Your task to perform on an android device: Go to Maps Image 0: 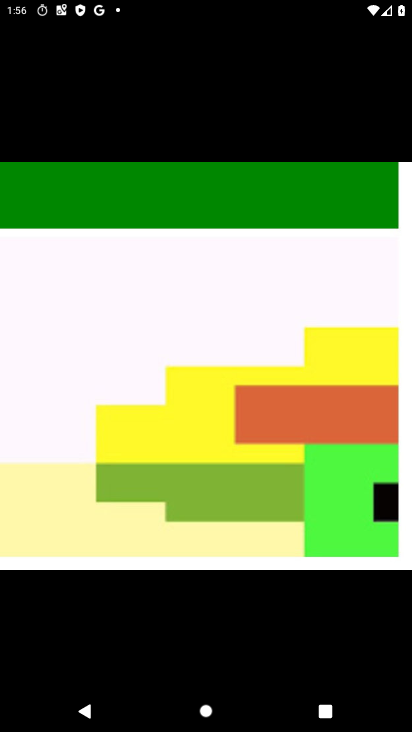
Step 0: press back button
Your task to perform on an android device: Go to Maps Image 1: 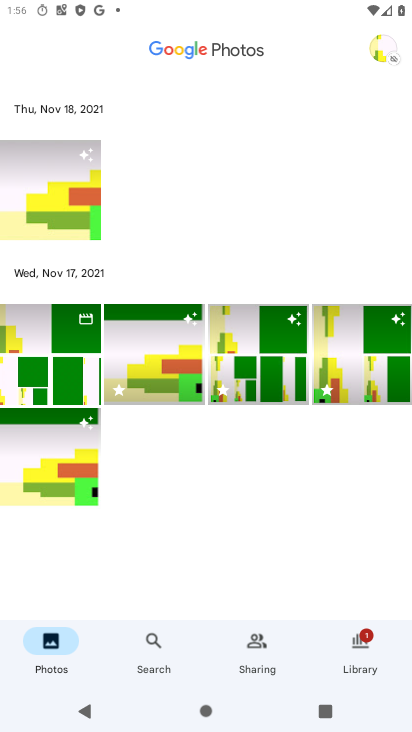
Step 1: press home button
Your task to perform on an android device: Go to Maps Image 2: 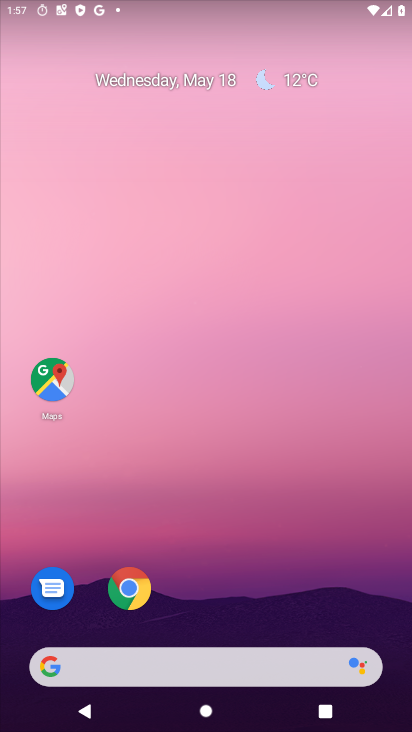
Step 2: drag from (187, 637) to (277, 67)
Your task to perform on an android device: Go to Maps Image 3: 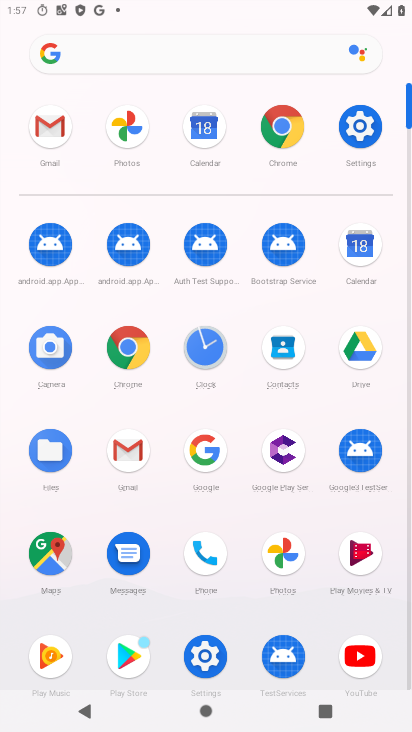
Step 3: click (35, 554)
Your task to perform on an android device: Go to Maps Image 4: 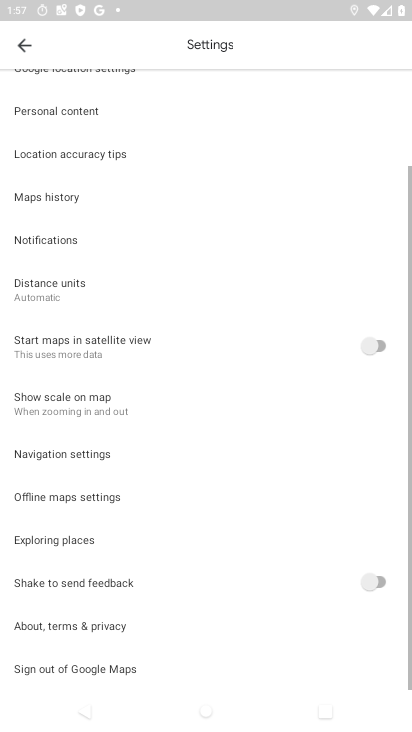
Step 4: drag from (225, 218) to (241, 724)
Your task to perform on an android device: Go to Maps Image 5: 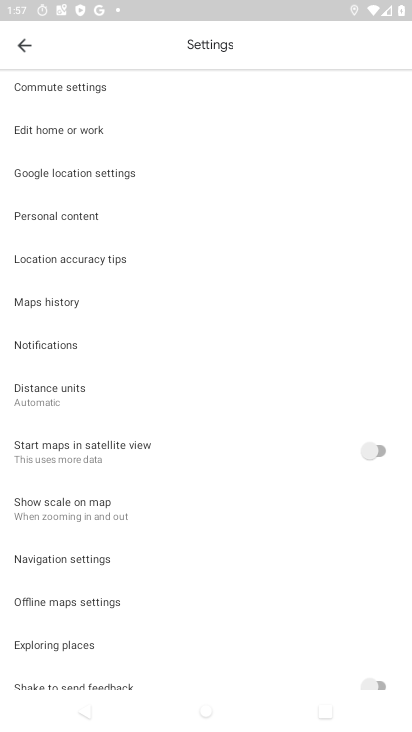
Step 5: click (22, 50)
Your task to perform on an android device: Go to Maps Image 6: 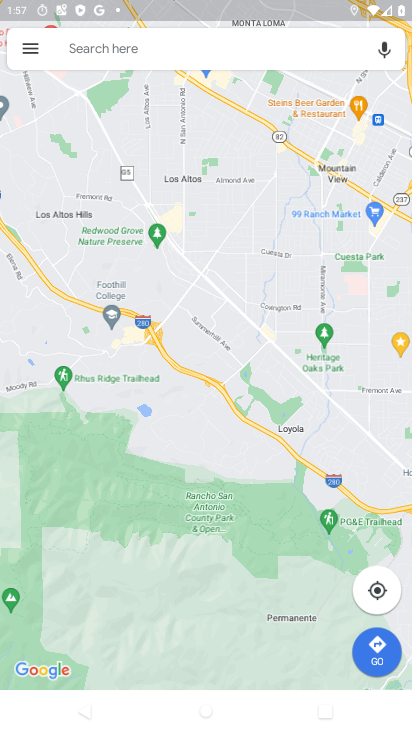
Step 6: task complete